Your task to perform on an android device: allow notifications from all sites in the chrome app Image 0: 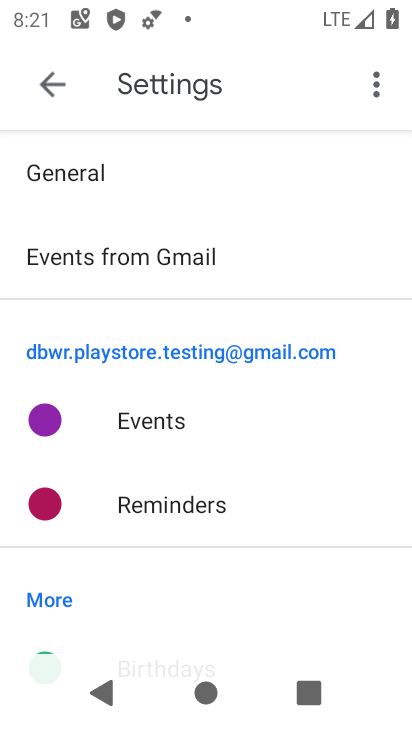
Step 0: press home button
Your task to perform on an android device: allow notifications from all sites in the chrome app Image 1: 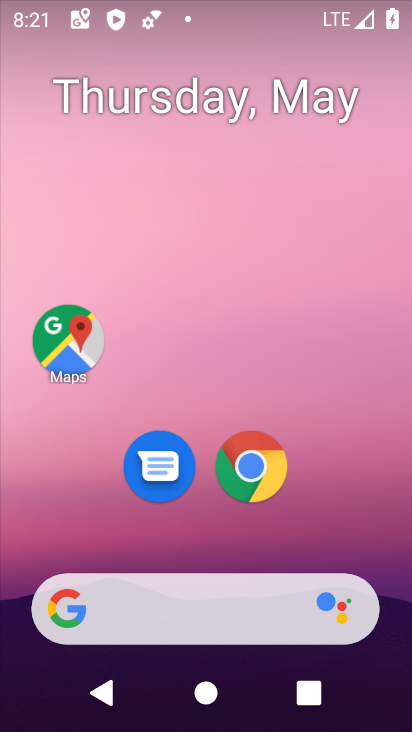
Step 1: click (268, 479)
Your task to perform on an android device: allow notifications from all sites in the chrome app Image 2: 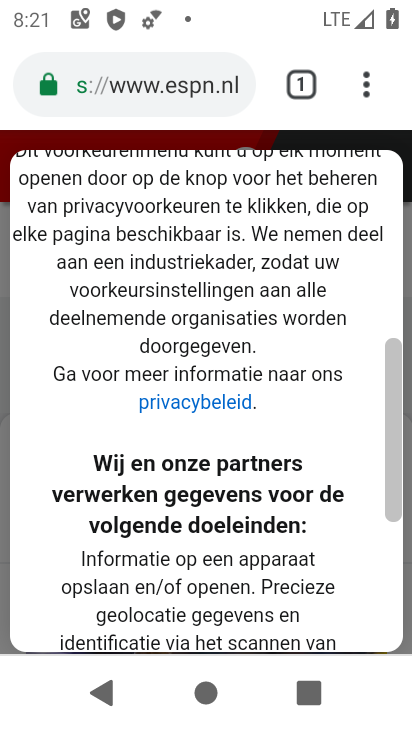
Step 2: click (370, 87)
Your task to perform on an android device: allow notifications from all sites in the chrome app Image 3: 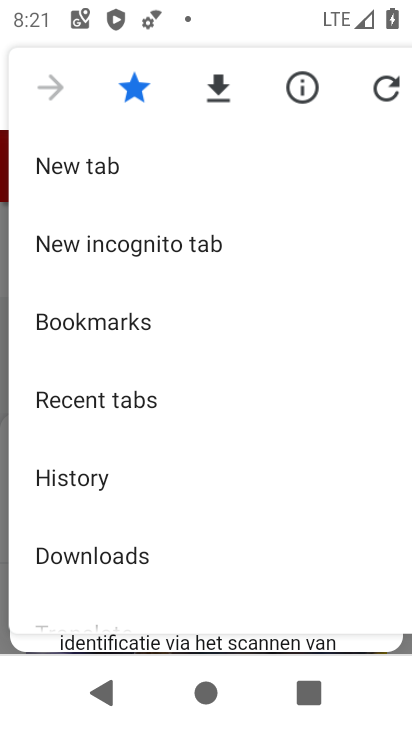
Step 3: drag from (184, 478) to (178, 84)
Your task to perform on an android device: allow notifications from all sites in the chrome app Image 4: 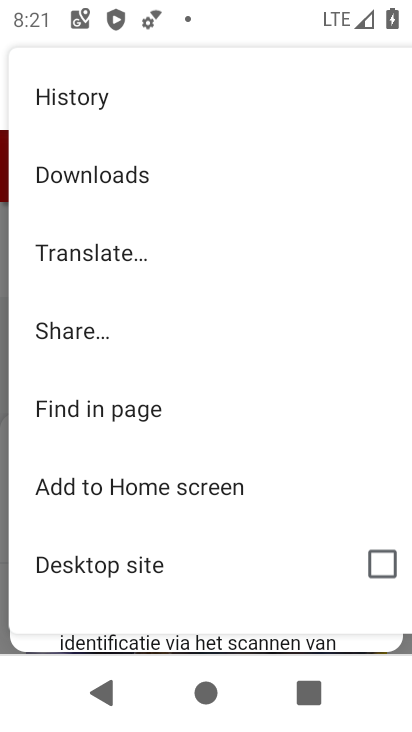
Step 4: drag from (214, 529) to (230, 145)
Your task to perform on an android device: allow notifications from all sites in the chrome app Image 5: 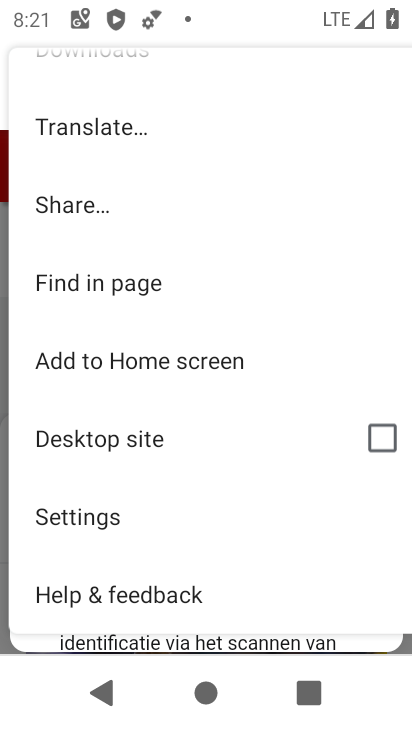
Step 5: click (75, 518)
Your task to perform on an android device: allow notifications from all sites in the chrome app Image 6: 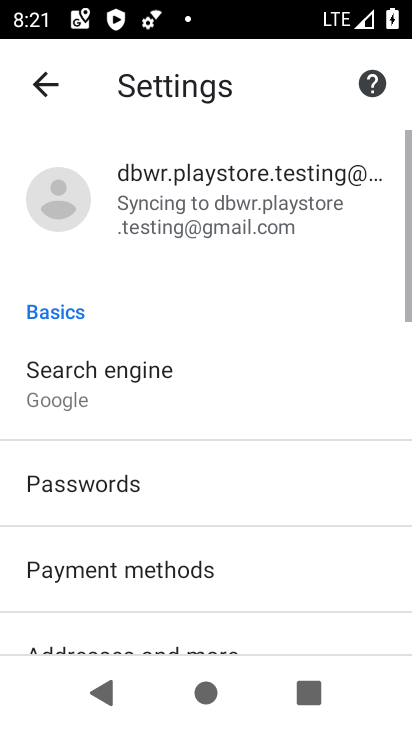
Step 6: drag from (222, 538) to (218, 96)
Your task to perform on an android device: allow notifications from all sites in the chrome app Image 7: 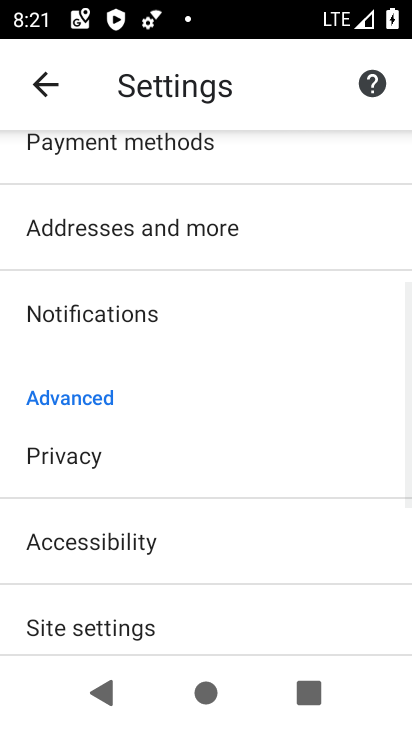
Step 7: drag from (166, 592) to (209, 95)
Your task to perform on an android device: allow notifications from all sites in the chrome app Image 8: 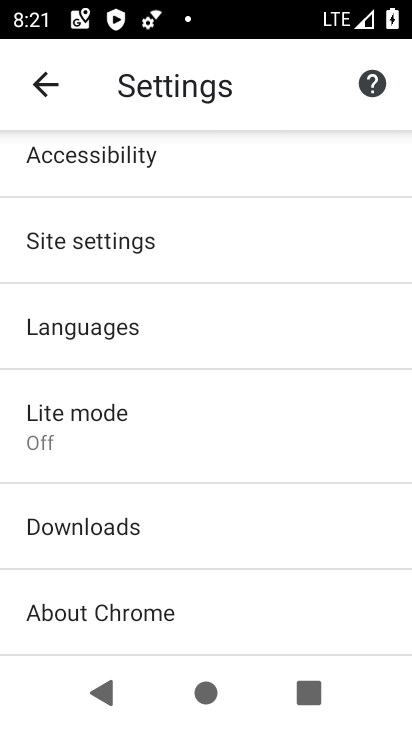
Step 8: click (107, 248)
Your task to perform on an android device: allow notifications from all sites in the chrome app Image 9: 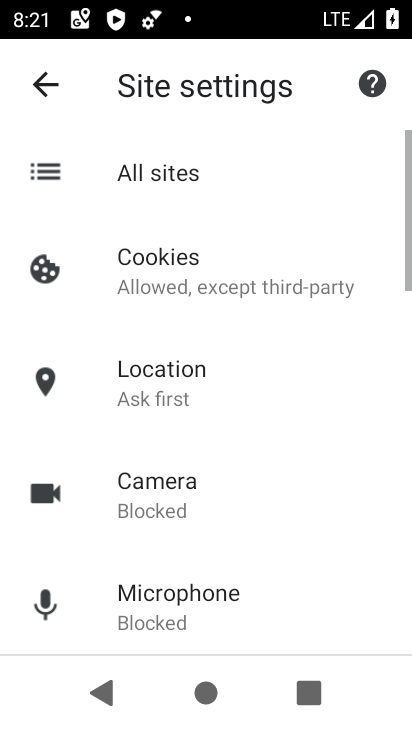
Step 9: drag from (267, 554) to (262, 192)
Your task to perform on an android device: allow notifications from all sites in the chrome app Image 10: 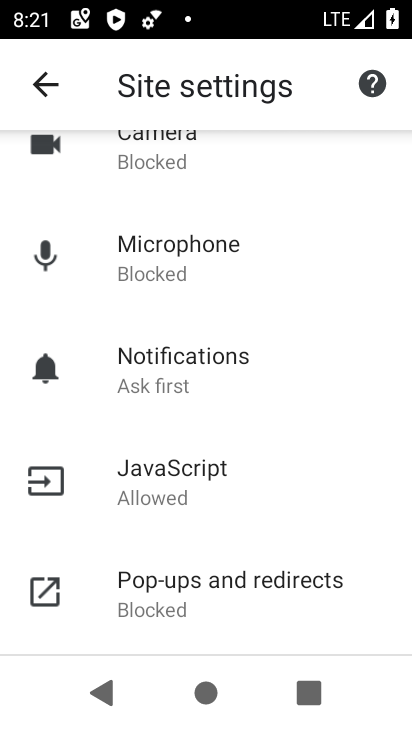
Step 10: click (195, 373)
Your task to perform on an android device: allow notifications from all sites in the chrome app Image 11: 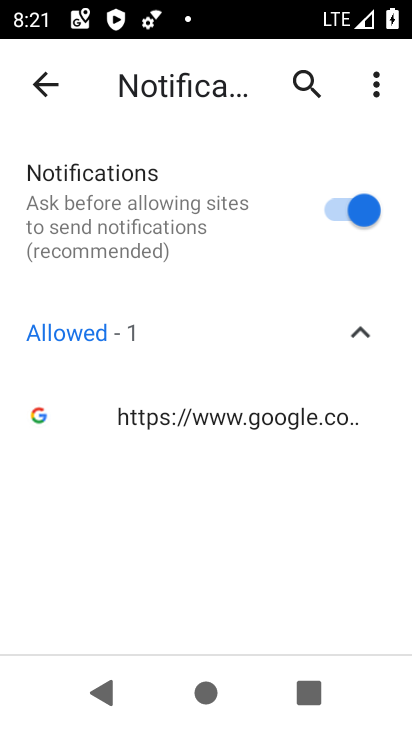
Step 11: task complete